Your task to perform on an android device: uninstall "Facebook" Image 0: 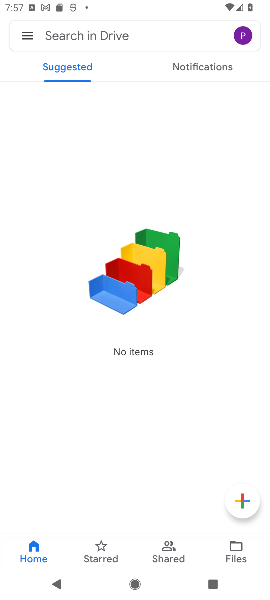
Step 0: press home button
Your task to perform on an android device: uninstall "Facebook" Image 1: 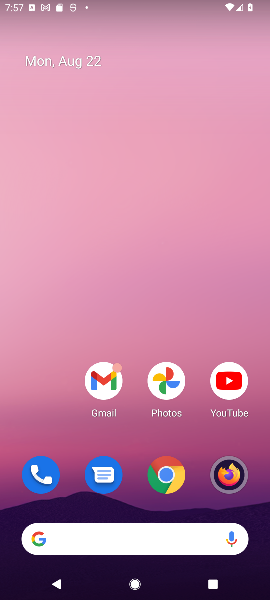
Step 1: drag from (115, 509) to (197, 3)
Your task to perform on an android device: uninstall "Facebook" Image 2: 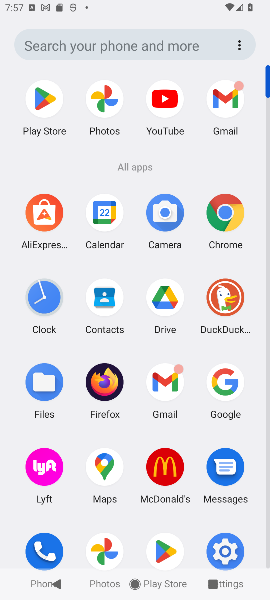
Step 2: click (42, 103)
Your task to perform on an android device: uninstall "Facebook" Image 3: 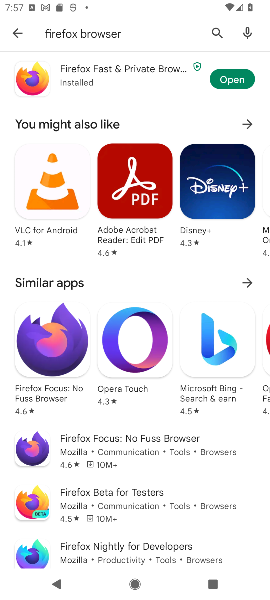
Step 3: click (100, 28)
Your task to perform on an android device: uninstall "Facebook" Image 4: 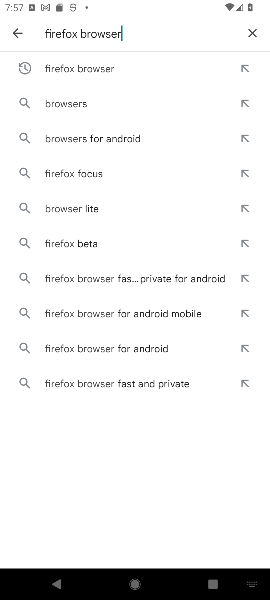
Step 4: click (250, 30)
Your task to perform on an android device: uninstall "Facebook" Image 5: 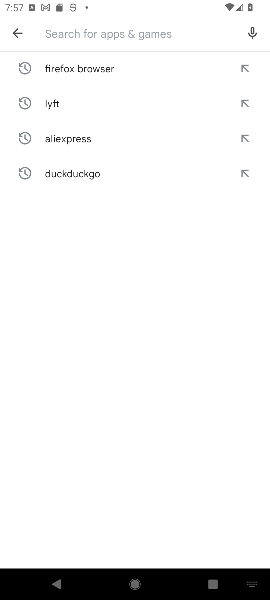
Step 5: type "facebook"
Your task to perform on an android device: uninstall "Facebook" Image 6: 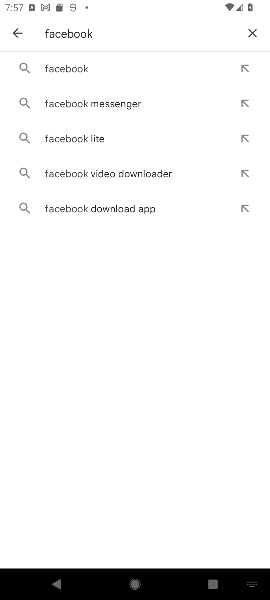
Step 6: click (80, 72)
Your task to perform on an android device: uninstall "Facebook" Image 7: 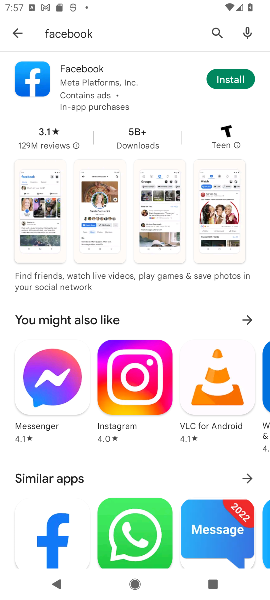
Step 7: task complete